Your task to perform on an android device: Open calendar and show me the fourth week of next month Image 0: 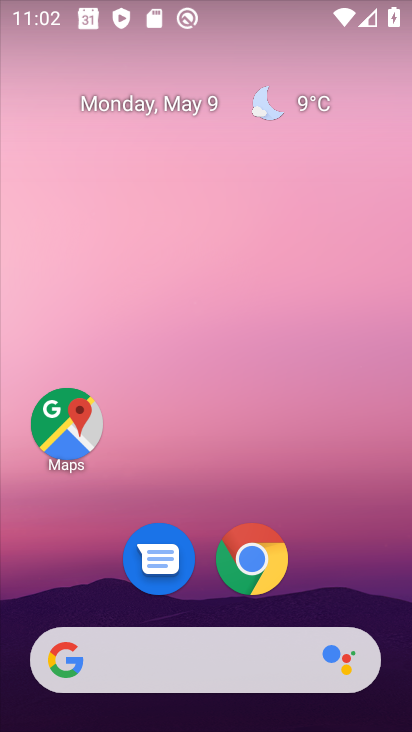
Step 0: drag from (323, 342) to (269, 165)
Your task to perform on an android device: Open calendar and show me the fourth week of next month Image 1: 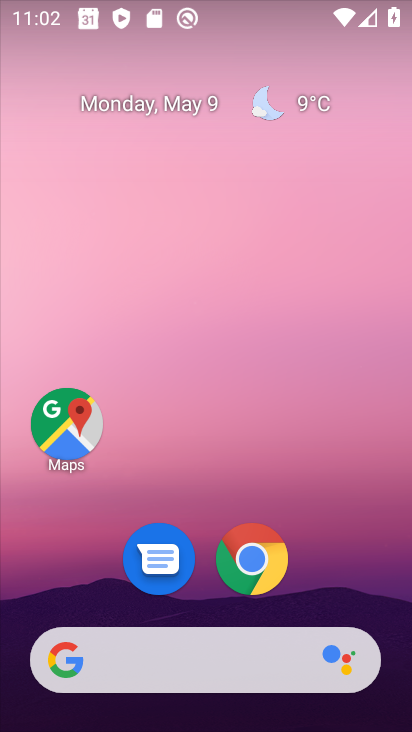
Step 1: drag from (335, 542) to (342, 184)
Your task to perform on an android device: Open calendar and show me the fourth week of next month Image 2: 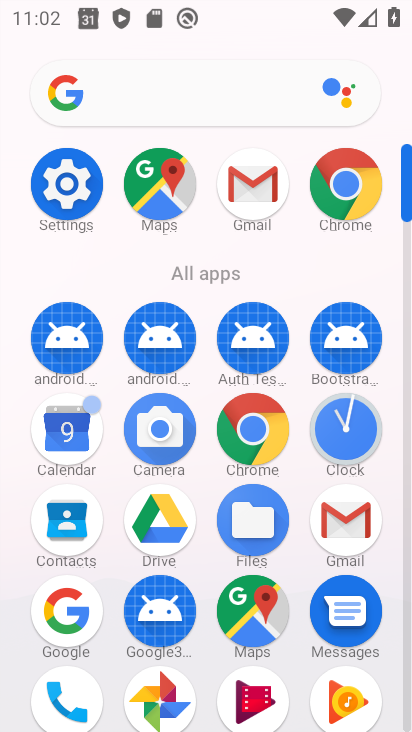
Step 2: click (82, 421)
Your task to perform on an android device: Open calendar and show me the fourth week of next month Image 3: 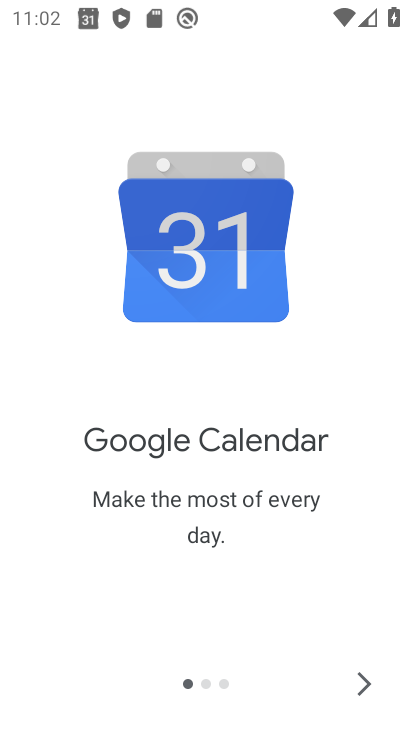
Step 3: click (367, 677)
Your task to perform on an android device: Open calendar and show me the fourth week of next month Image 4: 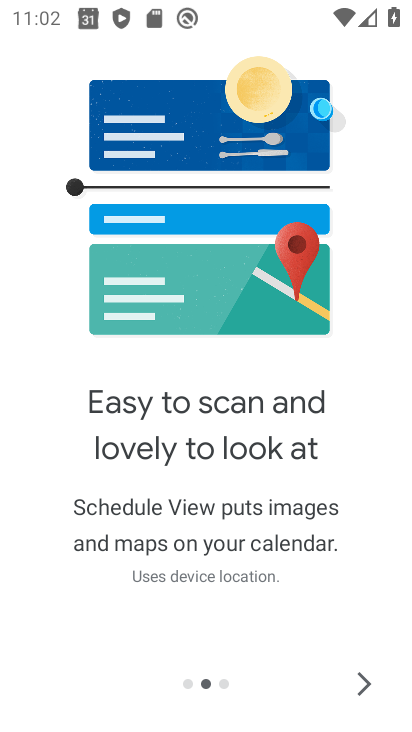
Step 4: click (368, 673)
Your task to perform on an android device: Open calendar and show me the fourth week of next month Image 5: 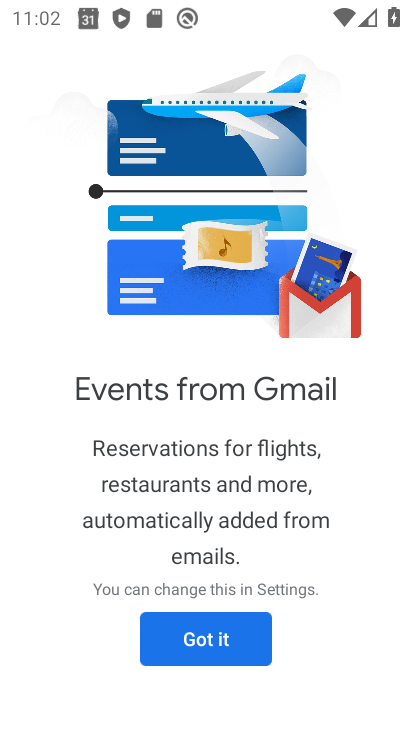
Step 5: click (214, 653)
Your task to perform on an android device: Open calendar and show me the fourth week of next month Image 6: 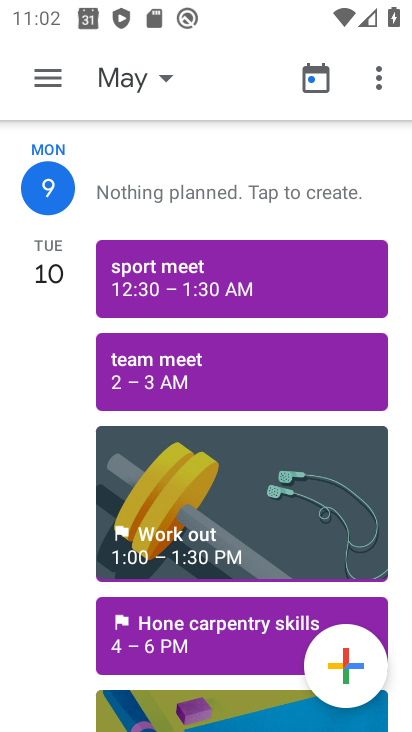
Step 6: click (146, 79)
Your task to perform on an android device: Open calendar and show me the fourth week of next month Image 7: 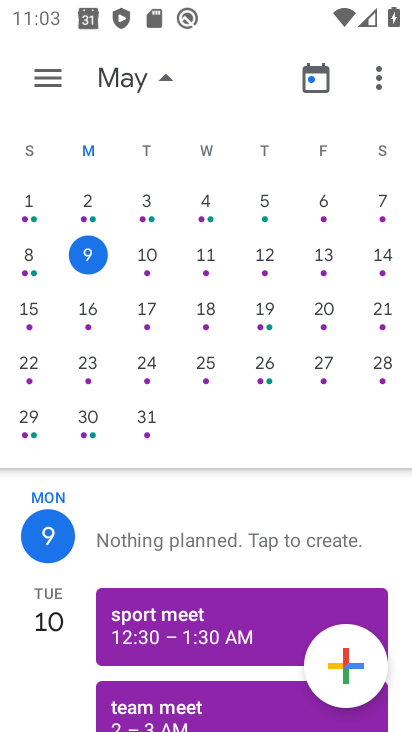
Step 7: drag from (331, 257) to (64, 302)
Your task to perform on an android device: Open calendar and show me the fourth week of next month Image 8: 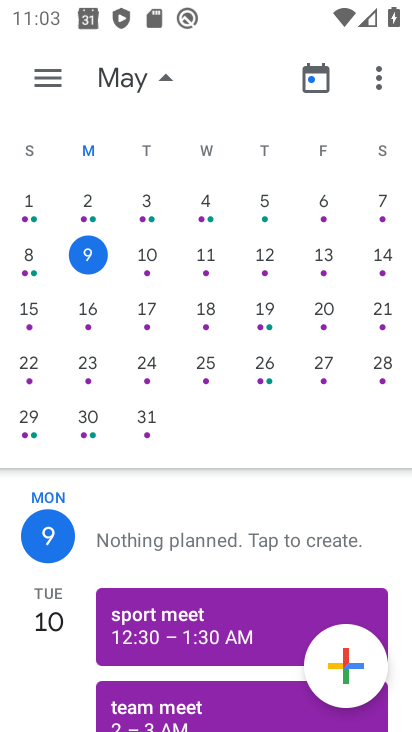
Step 8: click (383, 366)
Your task to perform on an android device: Open calendar and show me the fourth week of next month Image 9: 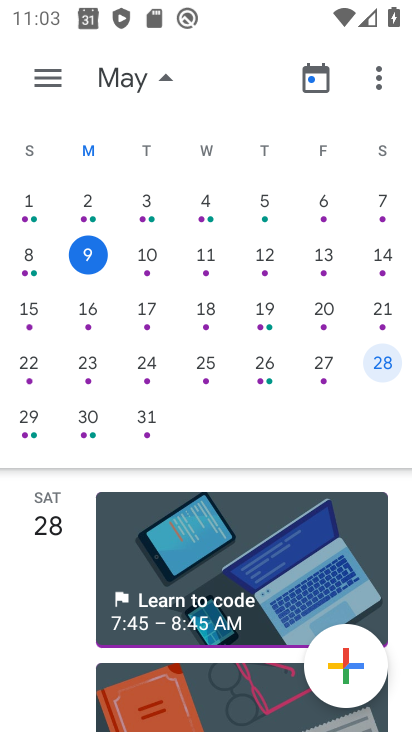
Step 9: task complete